Your task to perform on an android device: move an email to a new category in the gmail app Image 0: 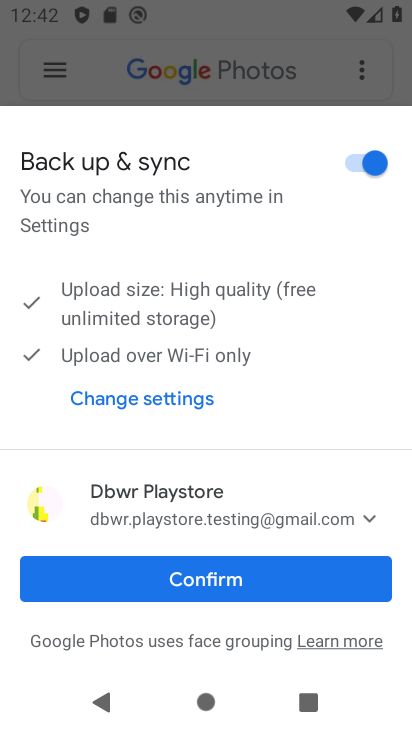
Step 0: press home button
Your task to perform on an android device: move an email to a new category in the gmail app Image 1: 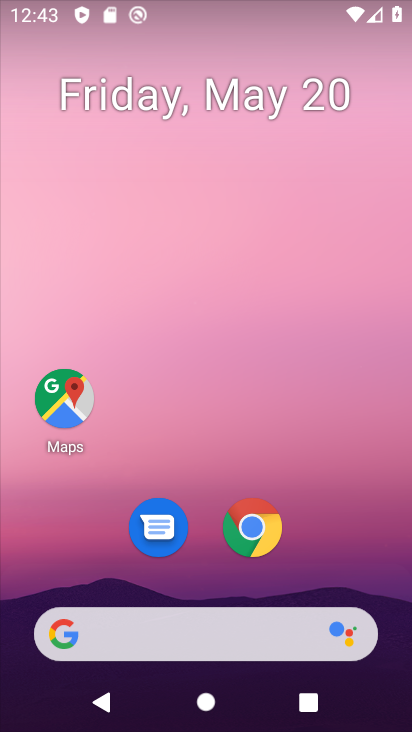
Step 1: drag from (233, 249) to (233, 39)
Your task to perform on an android device: move an email to a new category in the gmail app Image 2: 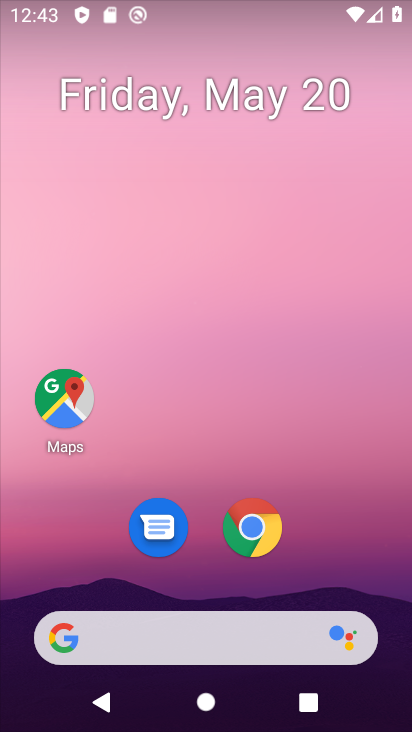
Step 2: drag from (316, 476) to (365, 30)
Your task to perform on an android device: move an email to a new category in the gmail app Image 3: 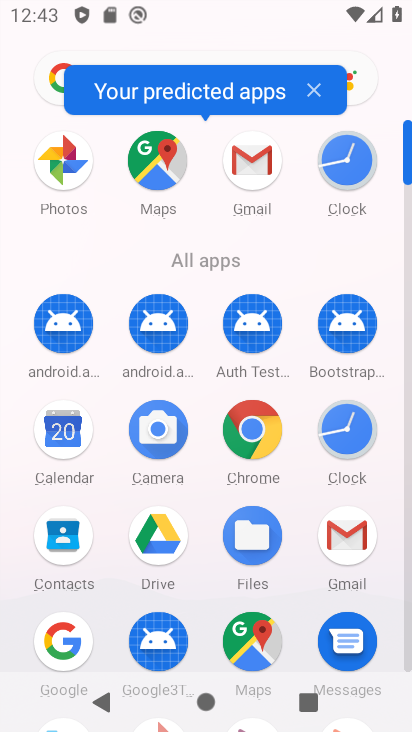
Step 3: click (266, 168)
Your task to perform on an android device: move an email to a new category in the gmail app Image 4: 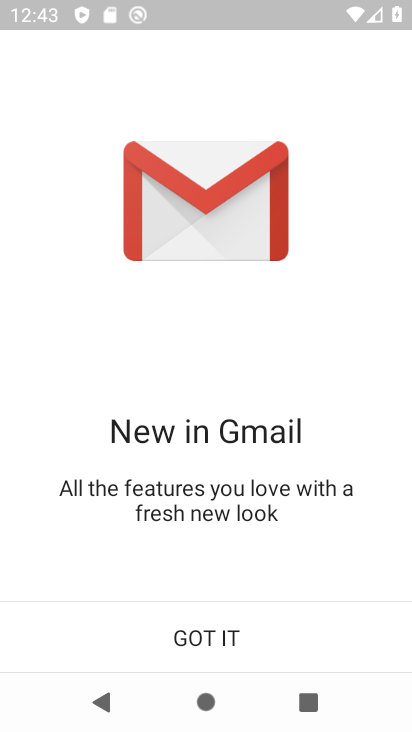
Step 4: click (255, 633)
Your task to perform on an android device: move an email to a new category in the gmail app Image 5: 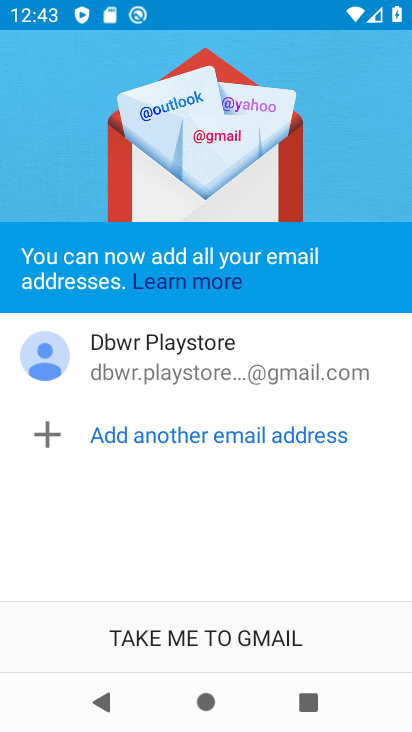
Step 5: click (255, 633)
Your task to perform on an android device: move an email to a new category in the gmail app Image 6: 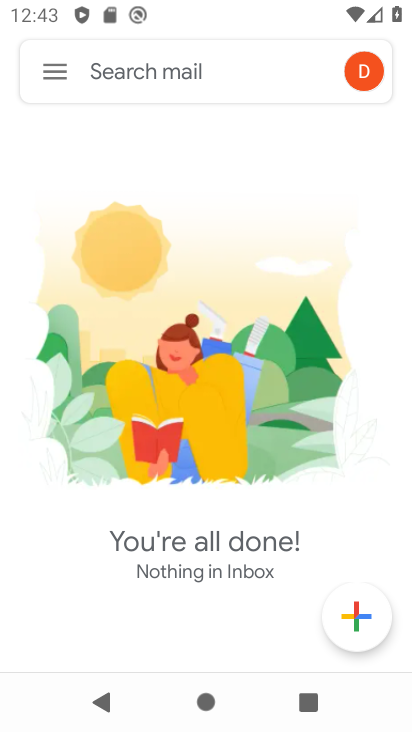
Step 6: click (59, 70)
Your task to perform on an android device: move an email to a new category in the gmail app Image 7: 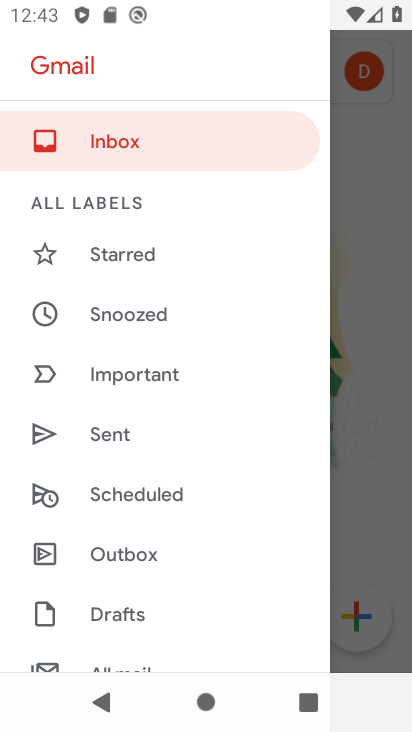
Step 7: drag from (176, 505) to (192, 248)
Your task to perform on an android device: move an email to a new category in the gmail app Image 8: 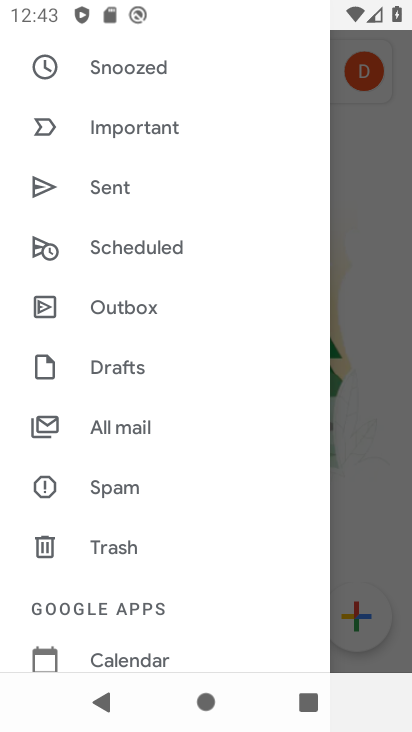
Step 8: click (151, 417)
Your task to perform on an android device: move an email to a new category in the gmail app Image 9: 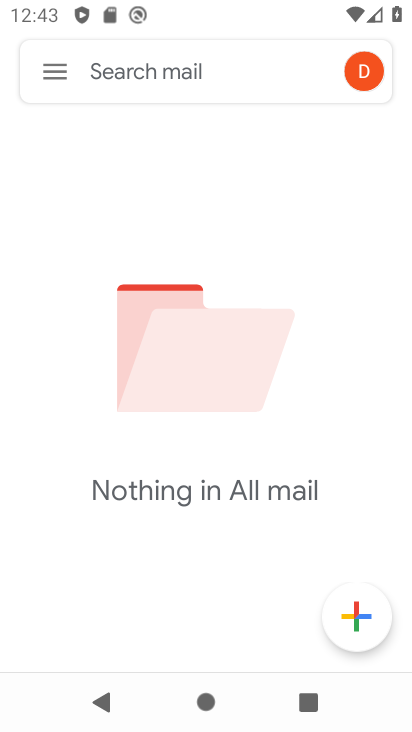
Step 9: task complete